Your task to perform on an android device: Open Android settings Image 0: 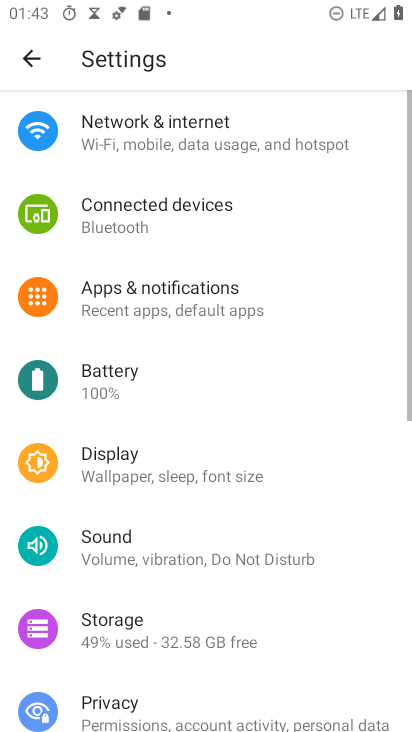
Step 0: drag from (212, 578) to (214, 217)
Your task to perform on an android device: Open Android settings Image 1: 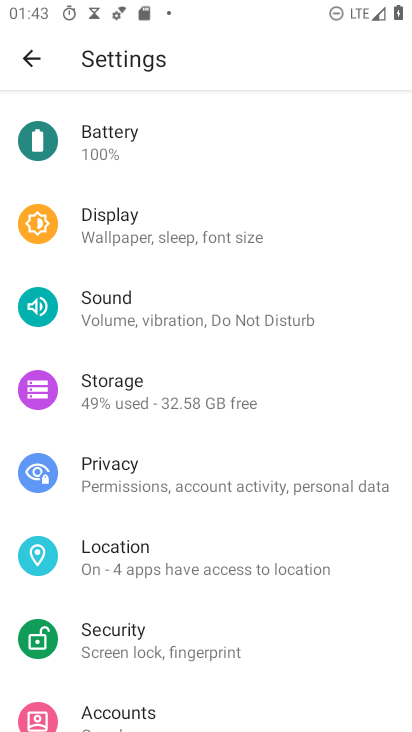
Step 1: drag from (195, 529) to (202, 144)
Your task to perform on an android device: Open Android settings Image 2: 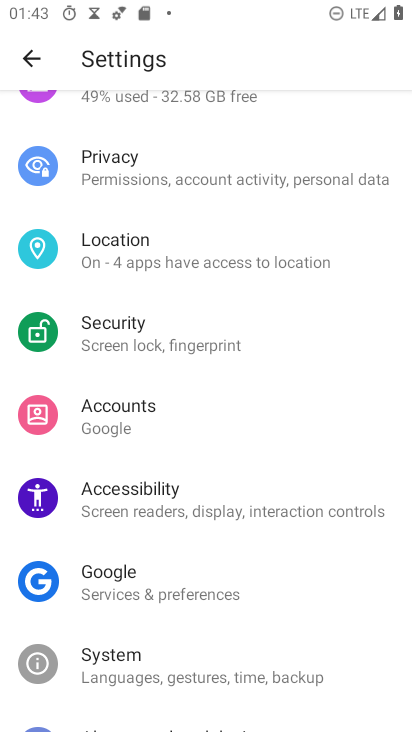
Step 2: drag from (145, 442) to (163, 1)
Your task to perform on an android device: Open Android settings Image 3: 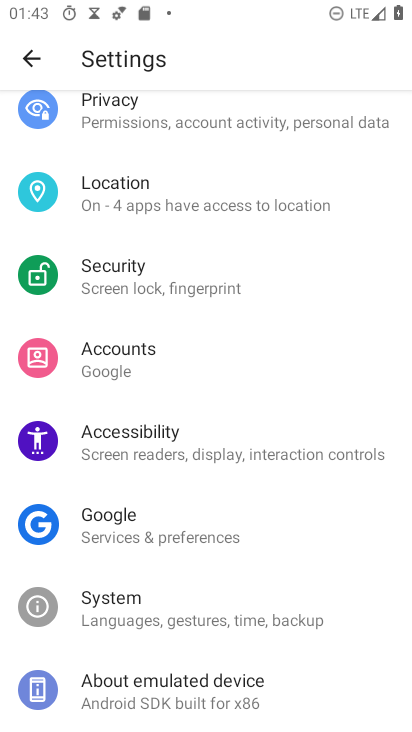
Step 3: click (151, 690)
Your task to perform on an android device: Open Android settings Image 4: 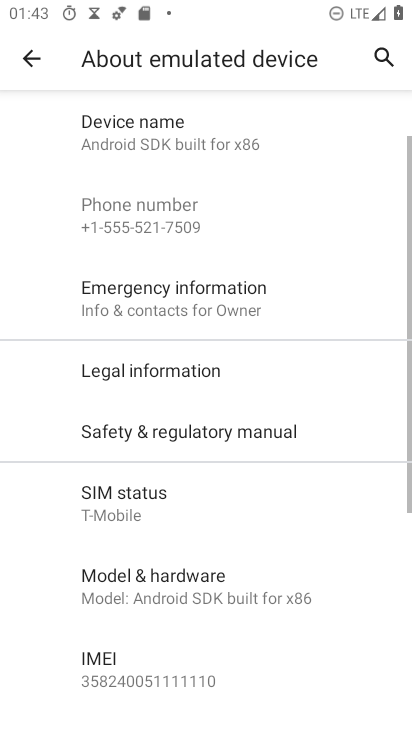
Step 4: drag from (186, 535) to (218, 63)
Your task to perform on an android device: Open Android settings Image 5: 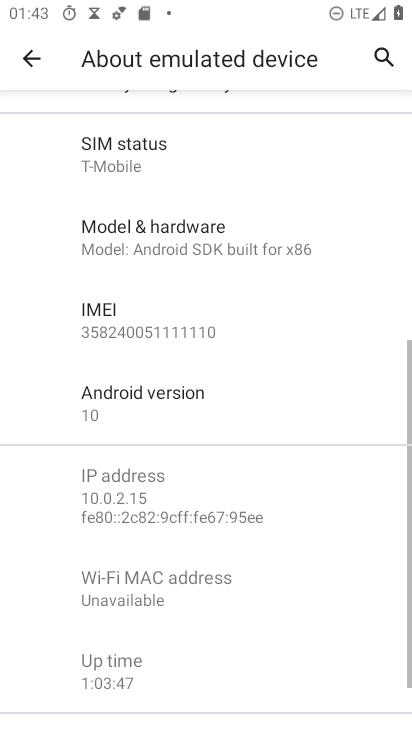
Step 5: drag from (202, 559) to (230, 160)
Your task to perform on an android device: Open Android settings Image 6: 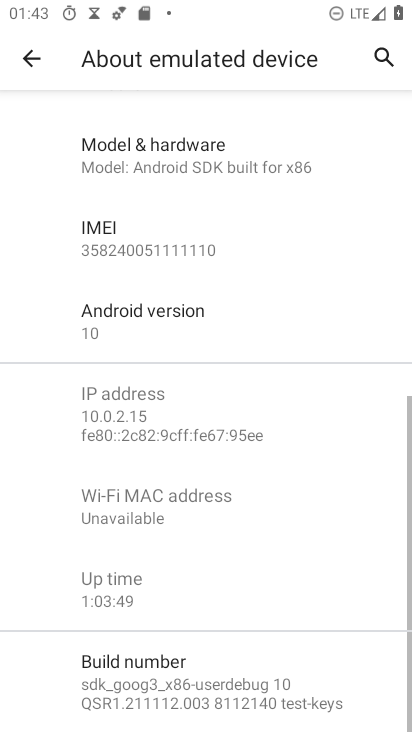
Step 6: click (184, 335)
Your task to perform on an android device: Open Android settings Image 7: 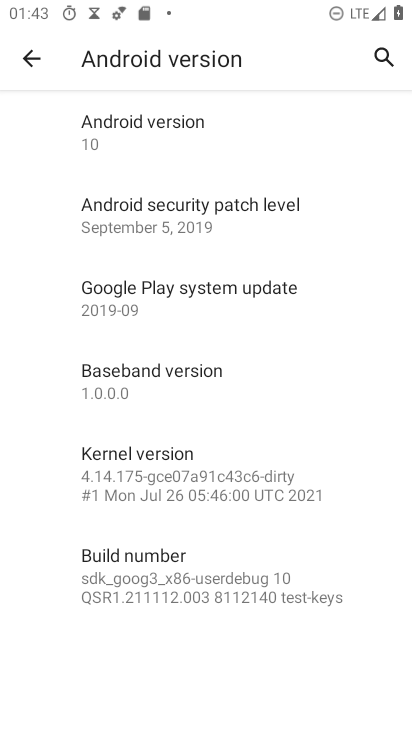
Step 7: click (34, 48)
Your task to perform on an android device: Open Android settings Image 8: 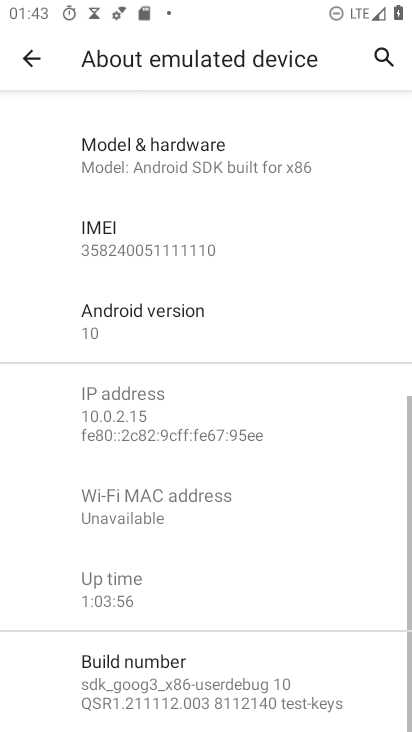
Step 8: task complete